Your task to perform on an android device: open the mobile data screen to see how much data has been used Image 0: 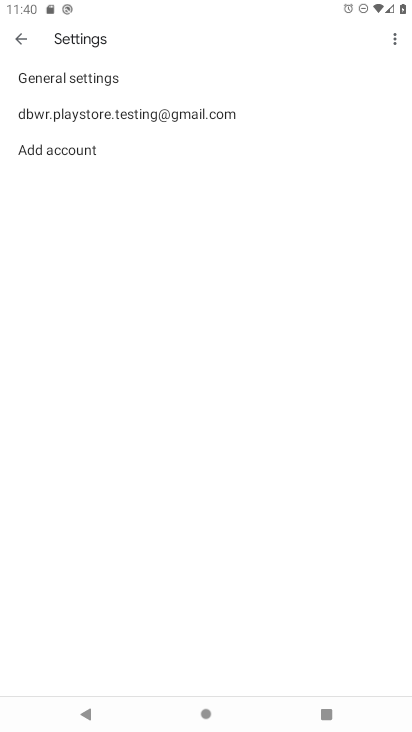
Step 0: press back button
Your task to perform on an android device: open the mobile data screen to see how much data has been used Image 1: 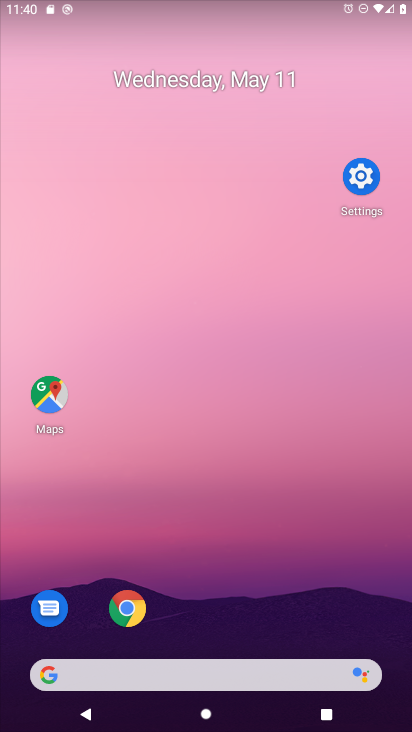
Step 1: drag from (355, 585) to (112, 46)
Your task to perform on an android device: open the mobile data screen to see how much data has been used Image 2: 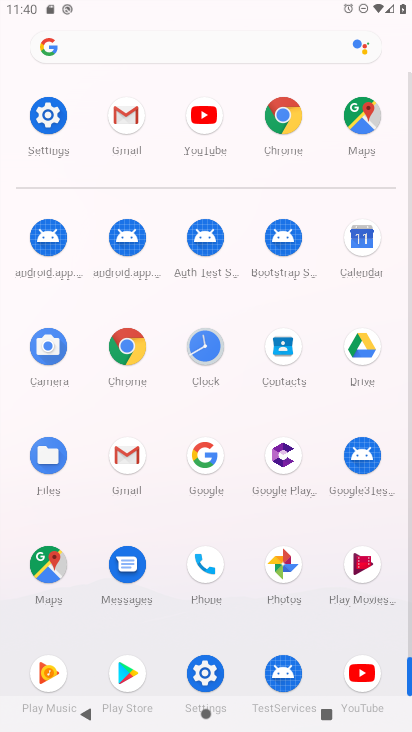
Step 2: click (47, 114)
Your task to perform on an android device: open the mobile data screen to see how much data has been used Image 3: 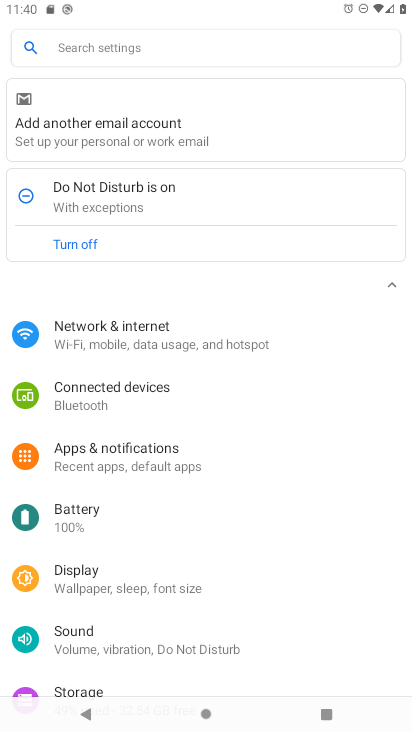
Step 3: click (131, 347)
Your task to perform on an android device: open the mobile data screen to see how much data has been used Image 4: 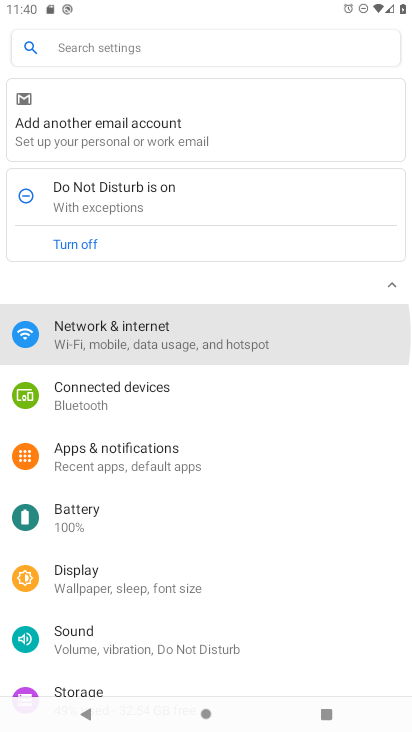
Step 4: click (131, 347)
Your task to perform on an android device: open the mobile data screen to see how much data has been used Image 5: 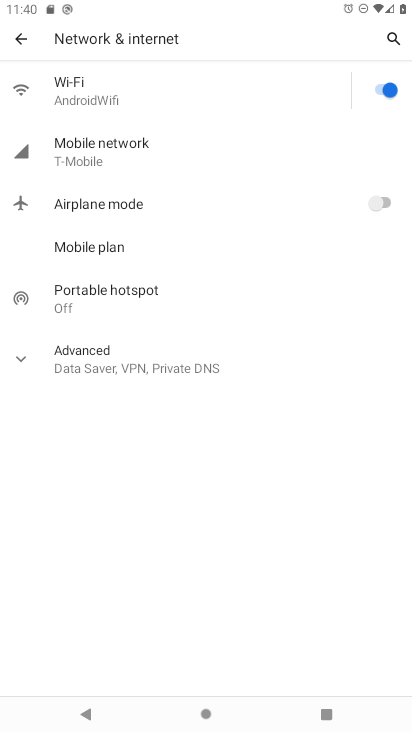
Step 5: task complete